Your task to perform on an android device: Open the stopwatch Image 0: 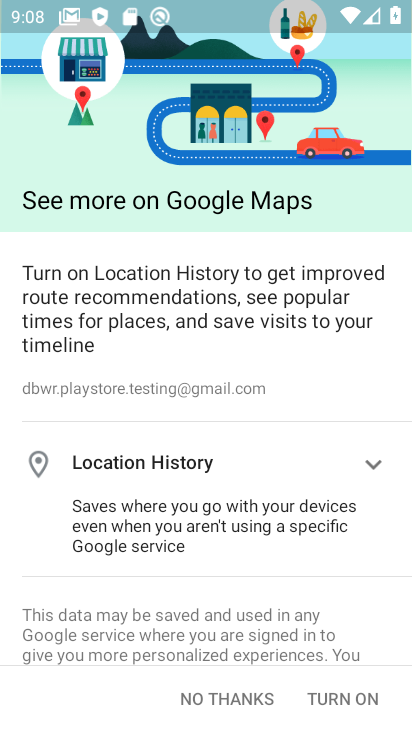
Step 0: press back button
Your task to perform on an android device: Open the stopwatch Image 1: 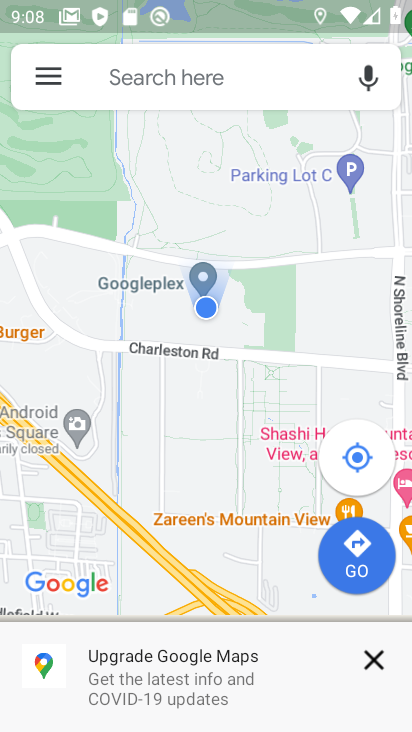
Step 1: press home button
Your task to perform on an android device: Open the stopwatch Image 2: 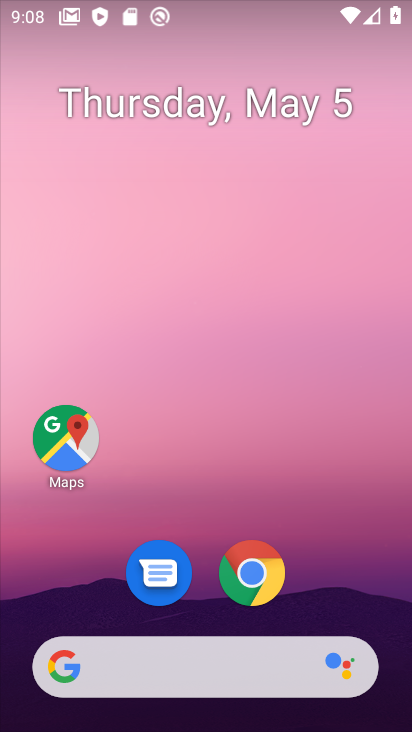
Step 2: drag from (162, 463) to (266, 77)
Your task to perform on an android device: Open the stopwatch Image 3: 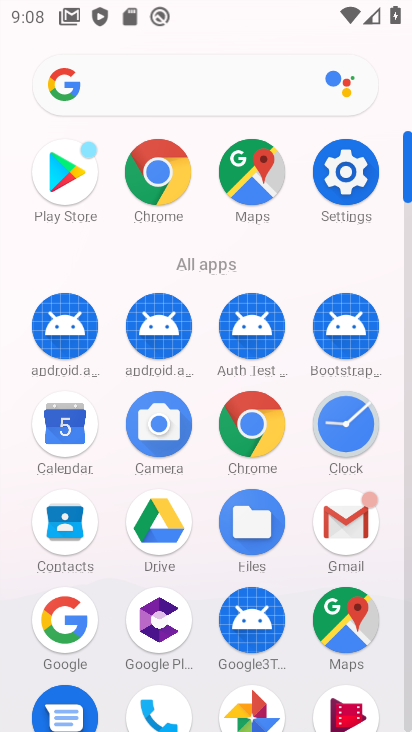
Step 3: click (348, 419)
Your task to perform on an android device: Open the stopwatch Image 4: 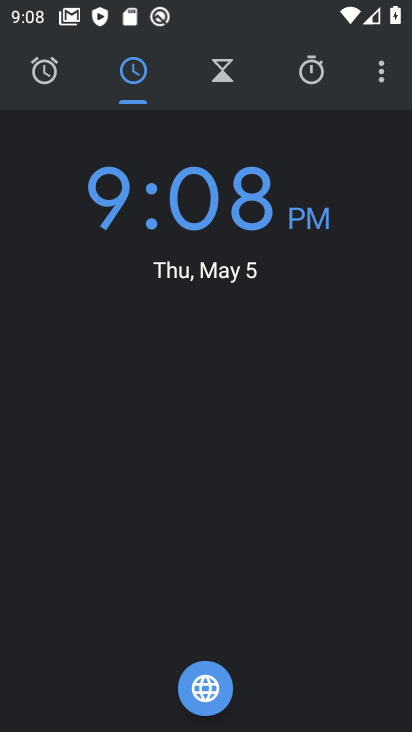
Step 4: click (306, 71)
Your task to perform on an android device: Open the stopwatch Image 5: 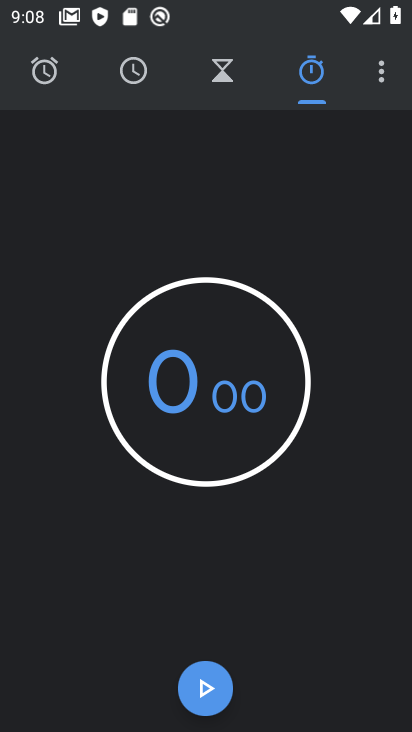
Step 5: task complete